Your task to perform on an android device: turn off location history Image 0: 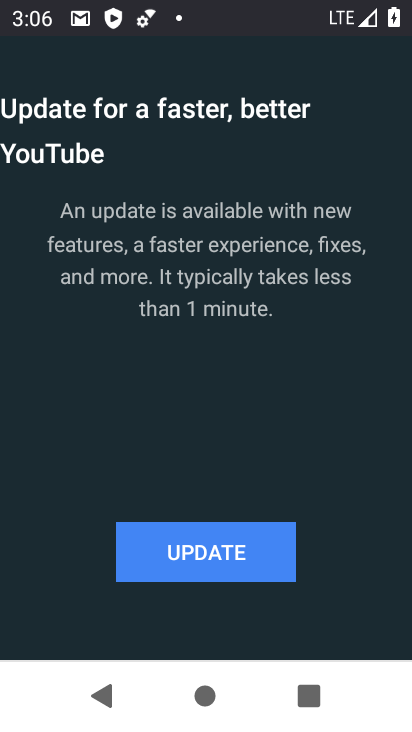
Step 0: press home button
Your task to perform on an android device: turn off location history Image 1: 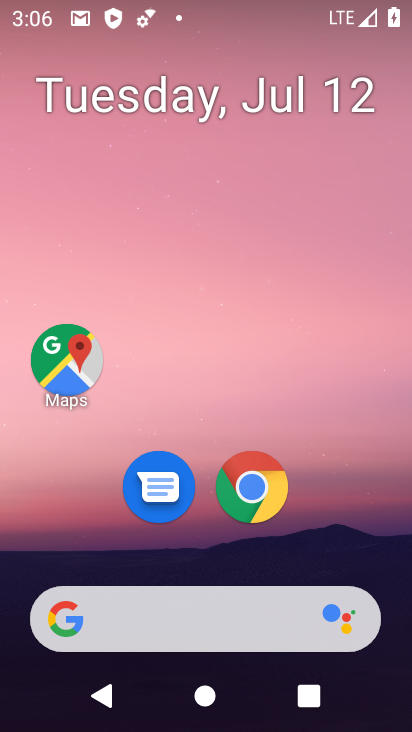
Step 1: drag from (196, 626) to (242, 322)
Your task to perform on an android device: turn off location history Image 2: 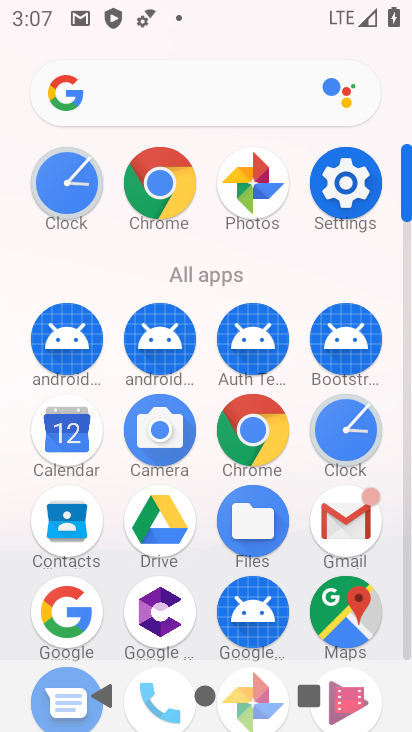
Step 2: click (358, 183)
Your task to perform on an android device: turn off location history Image 3: 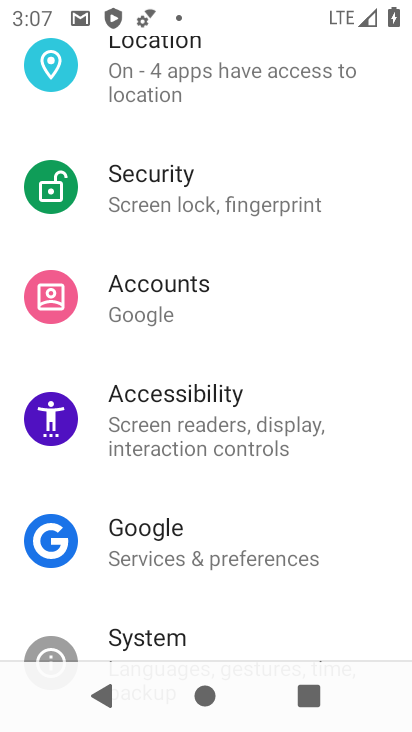
Step 3: drag from (214, 348) to (177, 619)
Your task to perform on an android device: turn off location history Image 4: 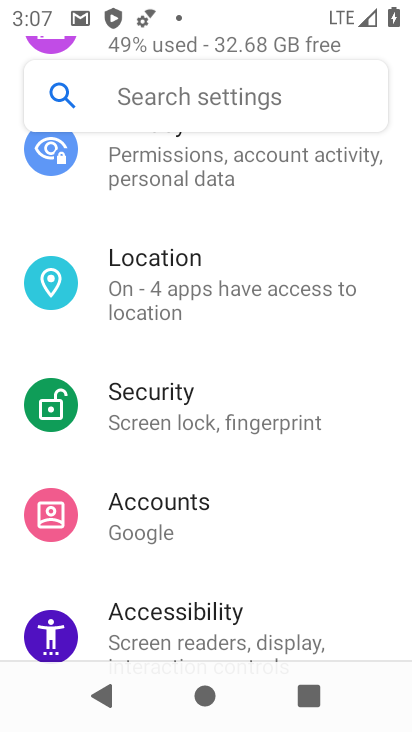
Step 4: click (218, 309)
Your task to perform on an android device: turn off location history Image 5: 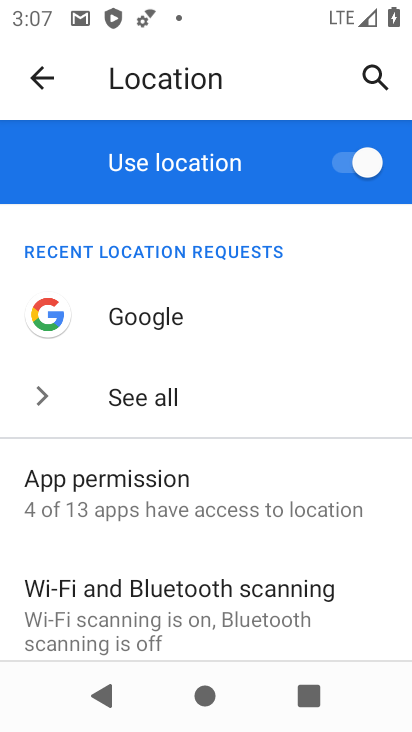
Step 5: drag from (198, 515) to (245, 240)
Your task to perform on an android device: turn off location history Image 6: 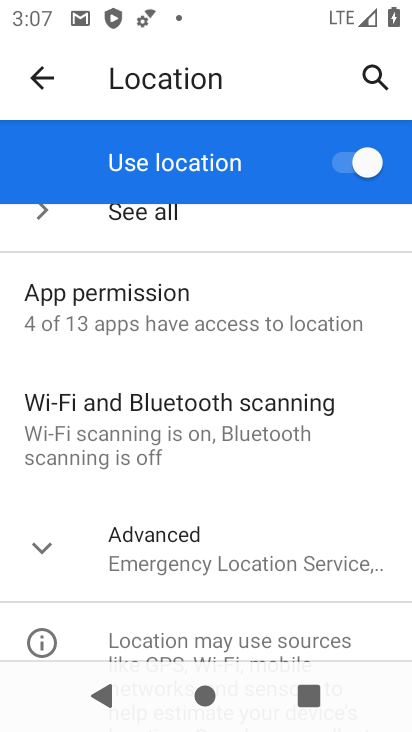
Step 6: click (193, 554)
Your task to perform on an android device: turn off location history Image 7: 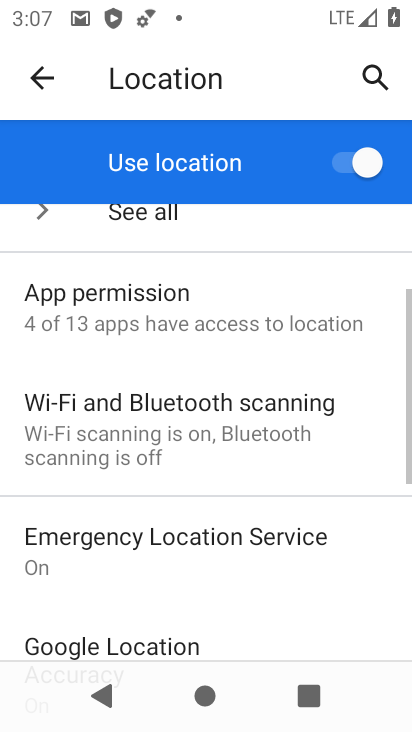
Step 7: drag from (217, 589) to (287, 239)
Your task to perform on an android device: turn off location history Image 8: 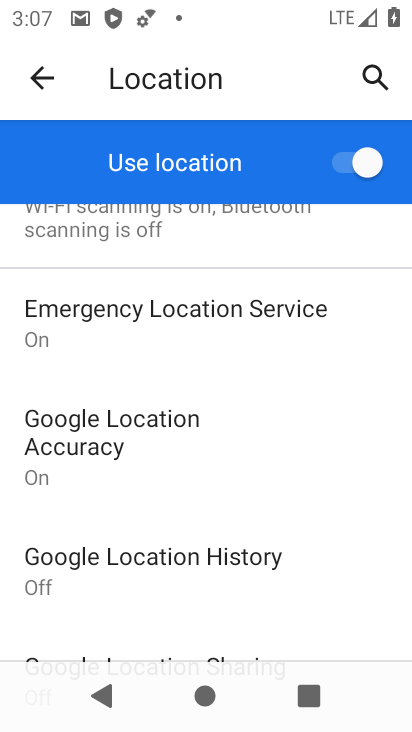
Step 8: click (217, 570)
Your task to perform on an android device: turn off location history Image 9: 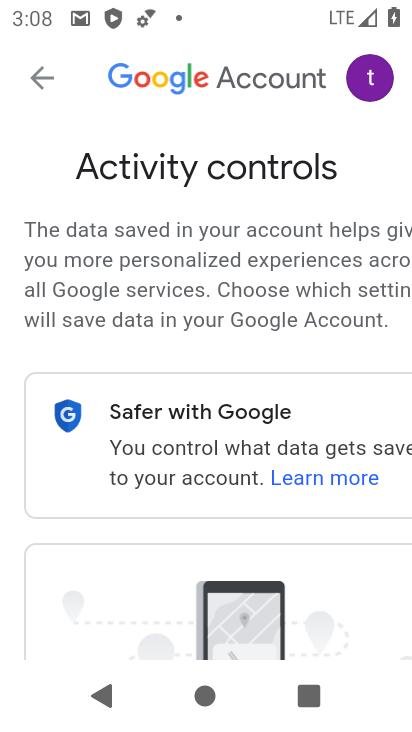
Step 9: task complete